Your task to perform on an android device: allow notifications from all sites in the chrome app Image 0: 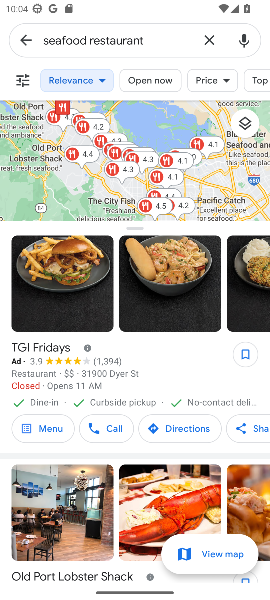
Step 0: press home button
Your task to perform on an android device: allow notifications from all sites in the chrome app Image 1: 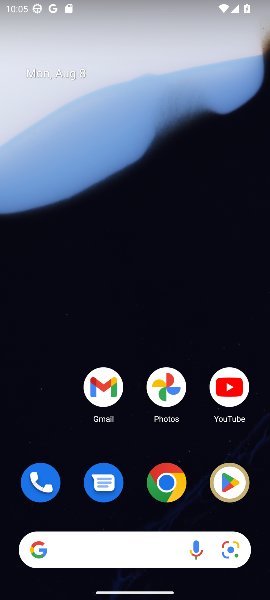
Step 1: click (171, 478)
Your task to perform on an android device: allow notifications from all sites in the chrome app Image 2: 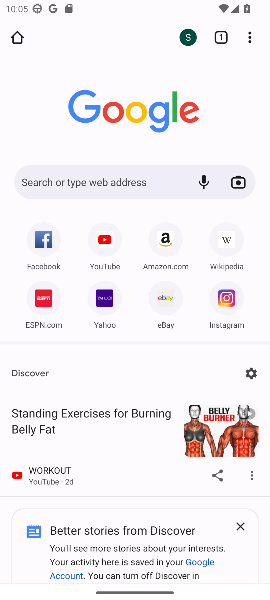
Step 2: click (255, 35)
Your task to perform on an android device: allow notifications from all sites in the chrome app Image 3: 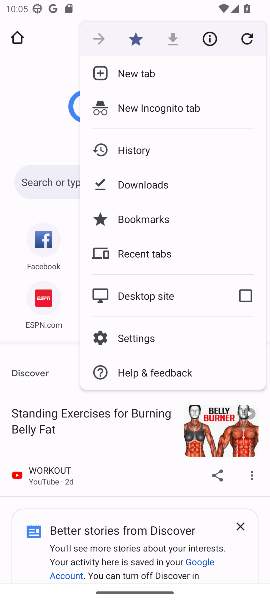
Step 3: click (130, 335)
Your task to perform on an android device: allow notifications from all sites in the chrome app Image 4: 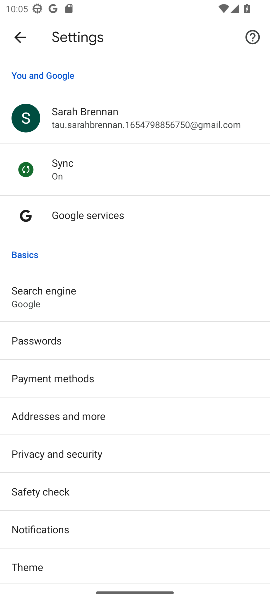
Step 4: drag from (50, 516) to (64, 153)
Your task to perform on an android device: allow notifications from all sites in the chrome app Image 5: 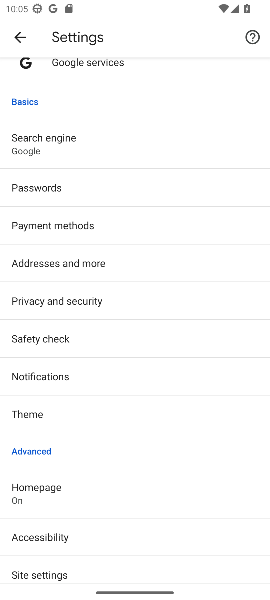
Step 5: click (31, 365)
Your task to perform on an android device: allow notifications from all sites in the chrome app Image 6: 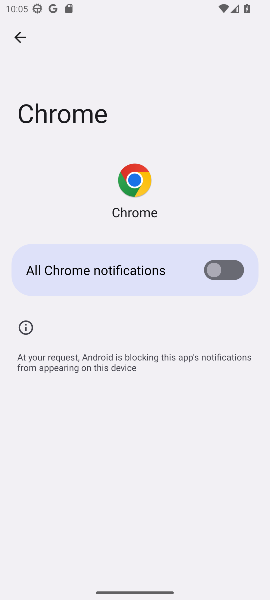
Step 6: click (228, 266)
Your task to perform on an android device: allow notifications from all sites in the chrome app Image 7: 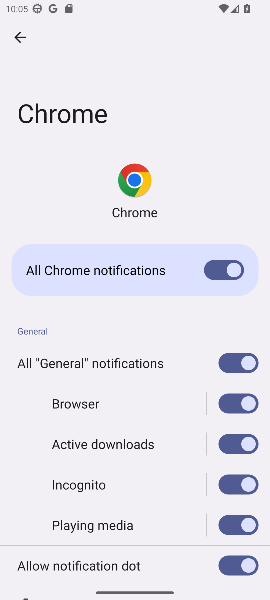
Step 7: task complete